Your task to perform on an android device: Open network settings Image 0: 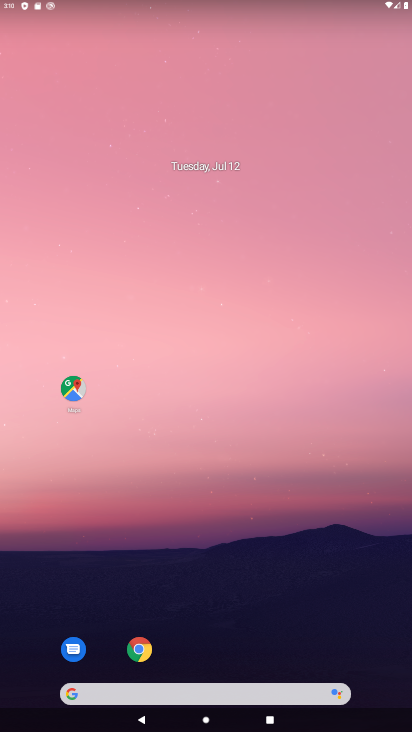
Step 0: drag from (207, 684) to (200, 352)
Your task to perform on an android device: Open network settings Image 1: 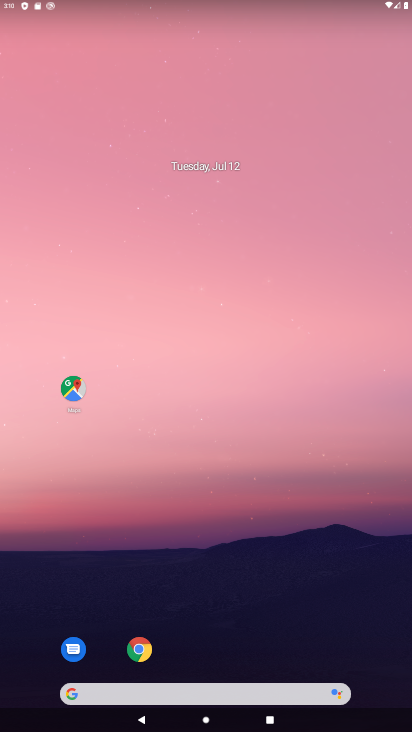
Step 1: drag from (206, 683) to (269, 139)
Your task to perform on an android device: Open network settings Image 2: 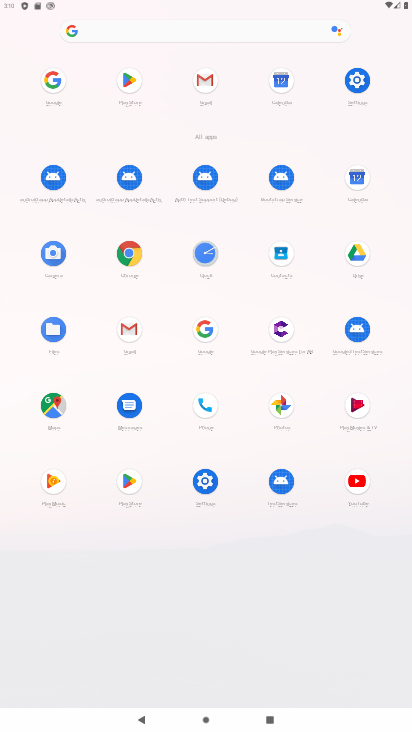
Step 2: click (359, 83)
Your task to perform on an android device: Open network settings Image 3: 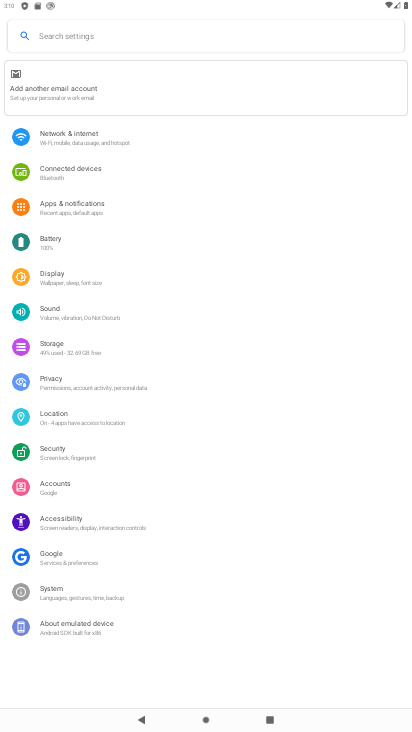
Step 3: click (98, 163)
Your task to perform on an android device: Open network settings Image 4: 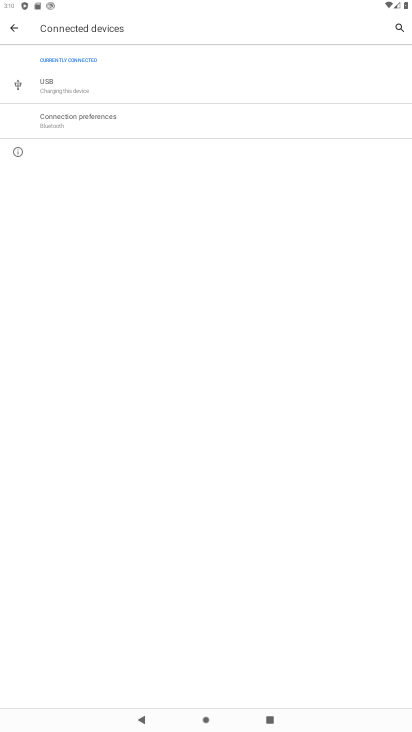
Step 4: press home button
Your task to perform on an android device: Open network settings Image 5: 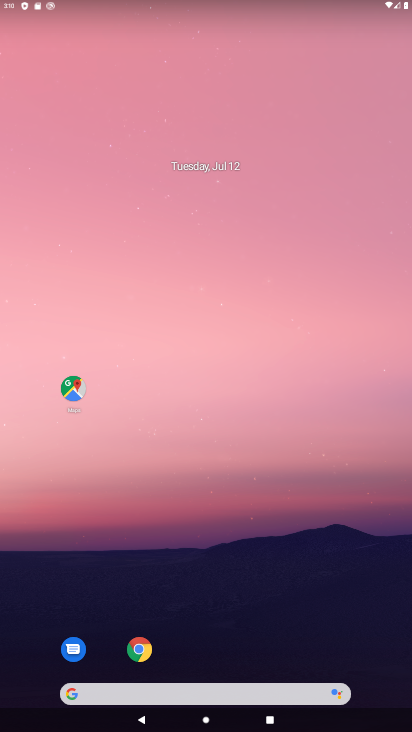
Step 5: click (194, 669)
Your task to perform on an android device: Open network settings Image 6: 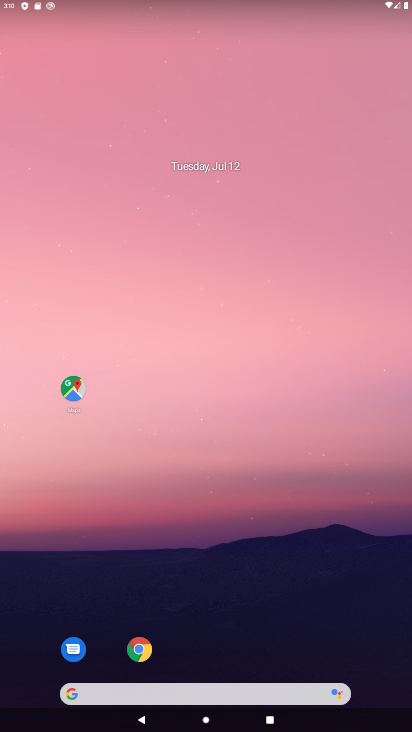
Step 6: drag from (175, 587) to (161, 196)
Your task to perform on an android device: Open network settings Image 7: 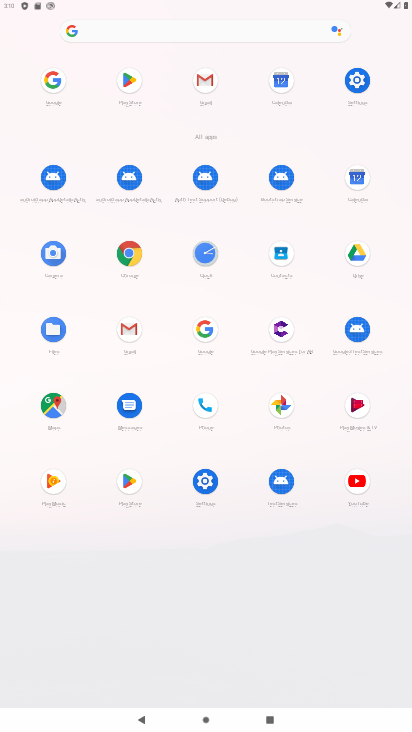
Step 7: click (359, 88)
Your task to perform on an android device: Open network settings Image 8: 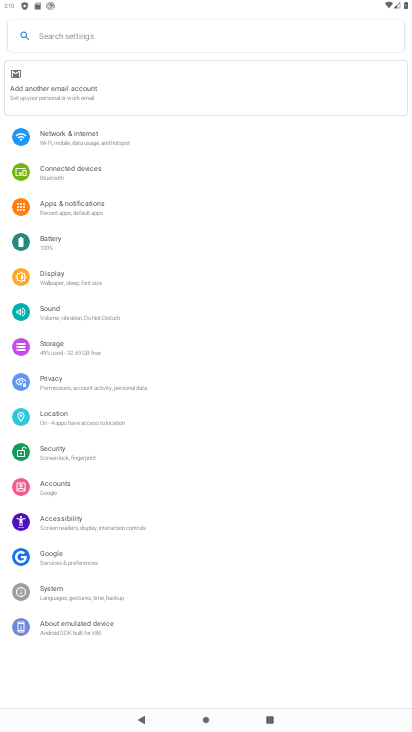
Step 8: click (102, 144)
Your task to perform on an android device: Open network settings Image 9: 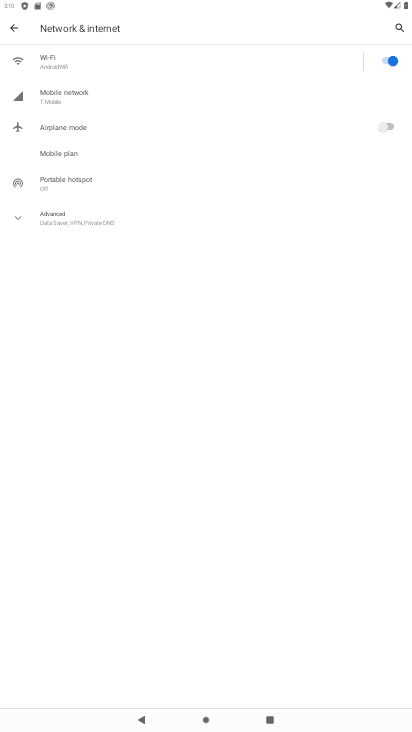
Step 9: click (104, 227)
Your task to perform on an android device: Open network settings Image 10: 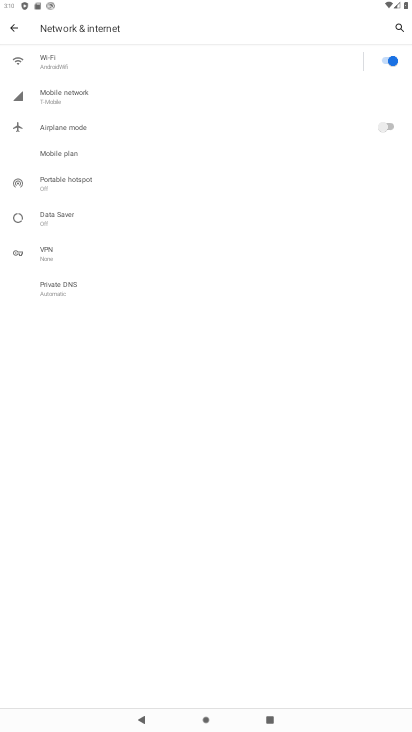
Step 10: task complete